Your task to perform on an android device: show emergency info Image 0: 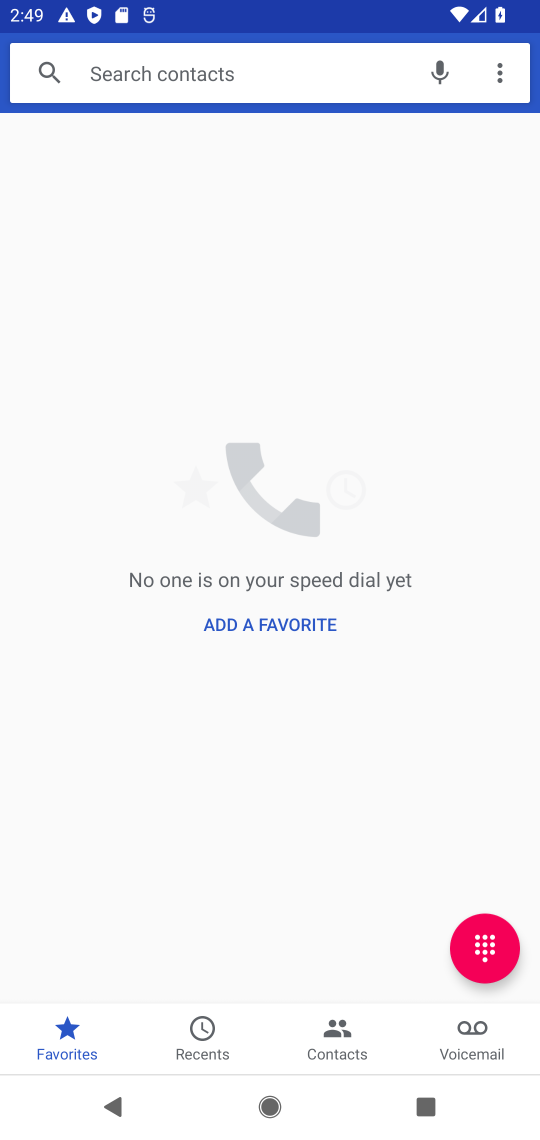
Step 0: press home button
Your task to perform on an android device: show emergency info Image 1: 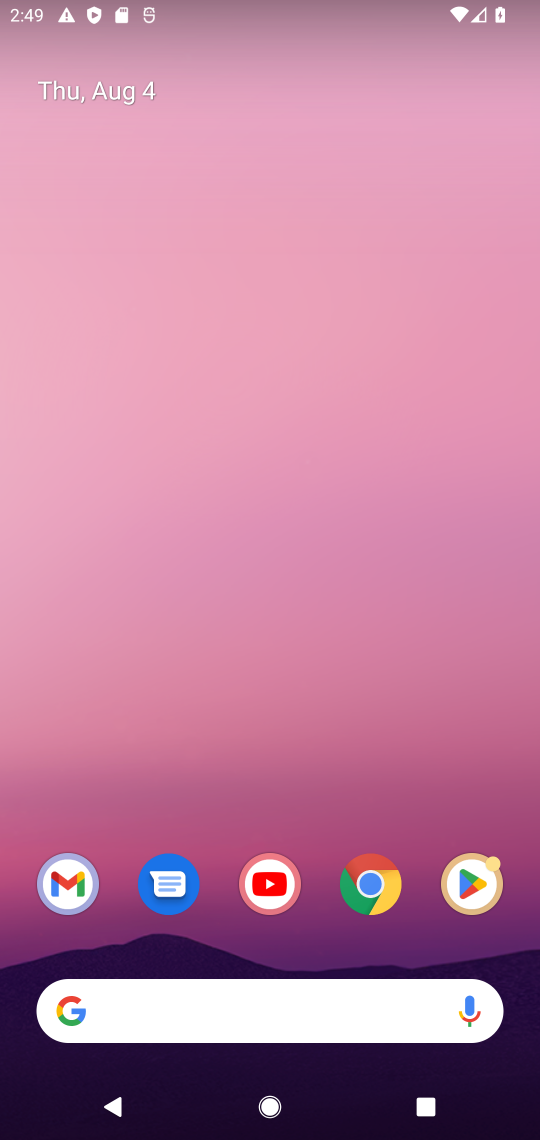
Step 1: drag from (305, 816) to (347, 239)
Your task to perform on an android device: show emergency info Image 2: 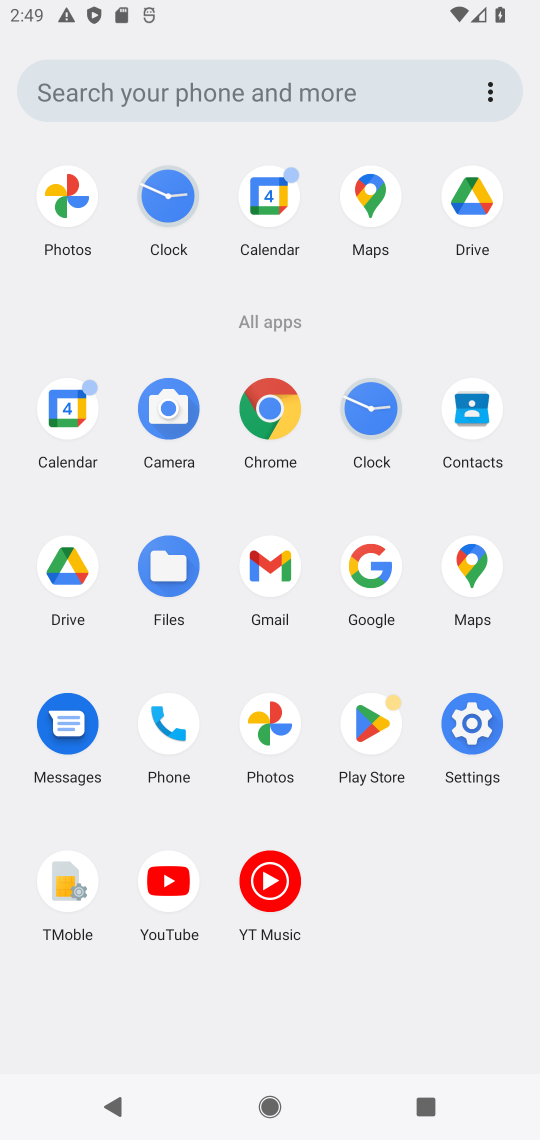
Step 2: click (472, 723)
Your task to perform on an android device: show emergency info Image 3: 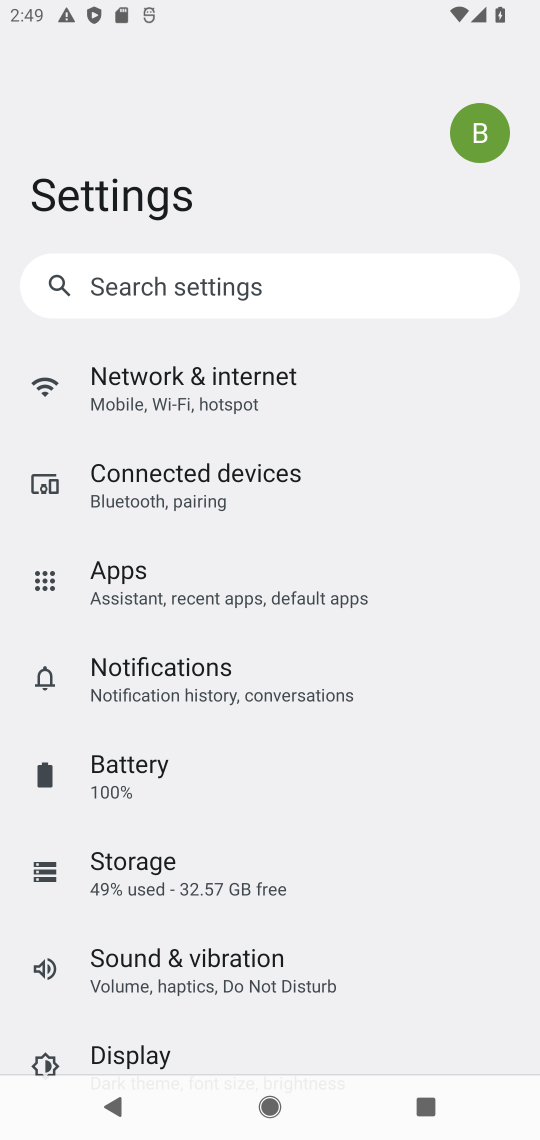
Step 3: drag from (430, 867) to (424, 672)
Your task to perform on an android device: show emergency info Image 4: 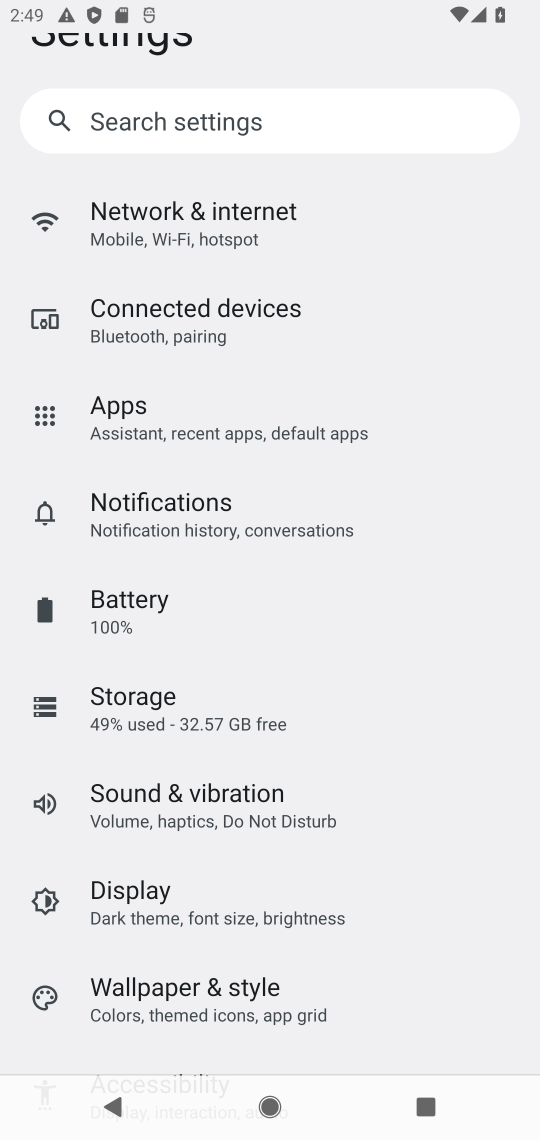
Step 4: drag from (469, 918) to (464, 766)
Your task to perform on an android device: show emergency info Image 5: 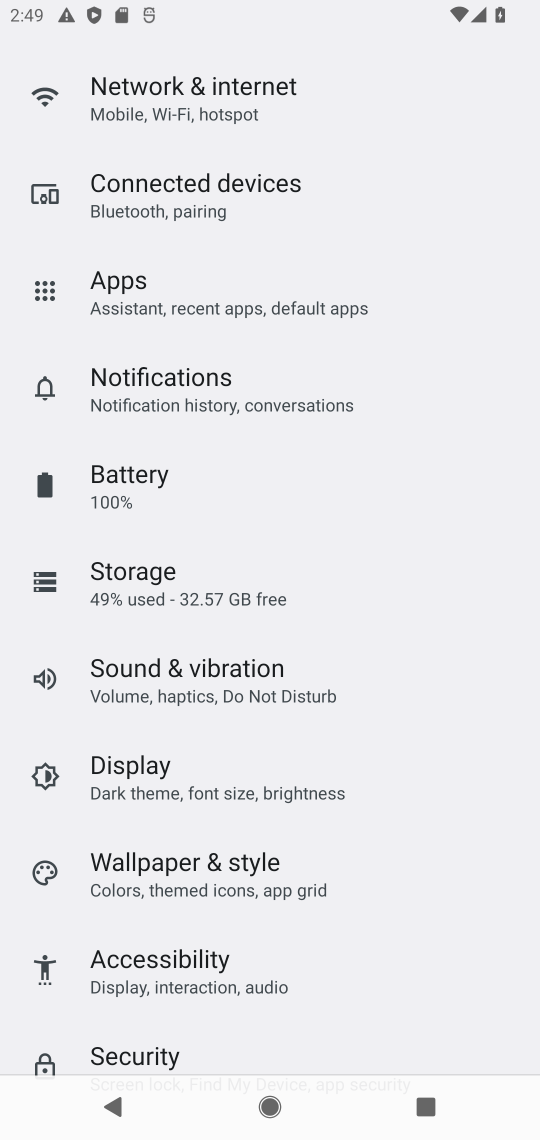
Step 5: drag from (442, 958) to (441, 711)
Your task to perform on an android device: show emergency info Image 6: 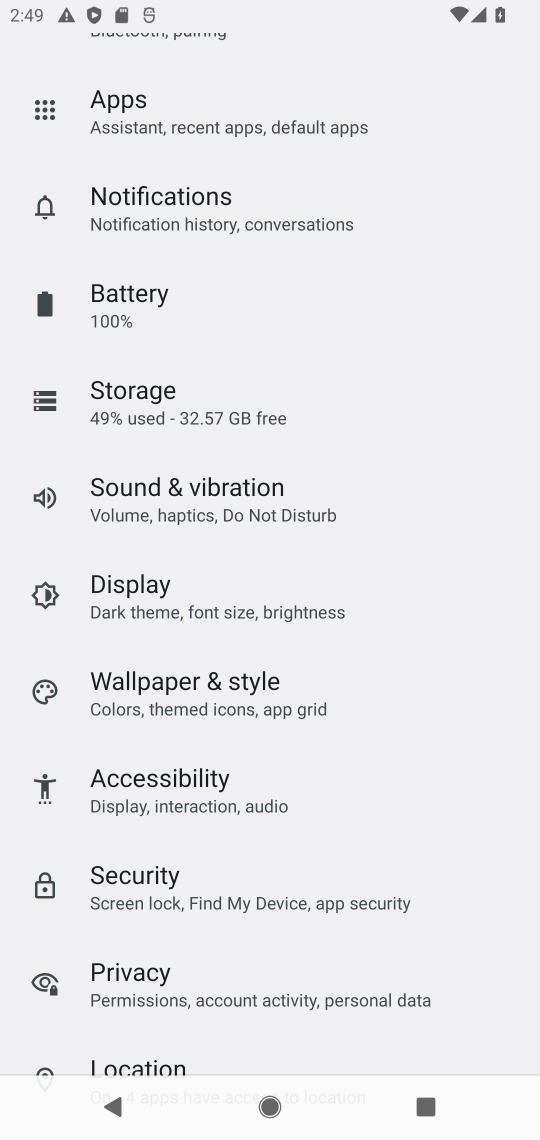
Step 6: drag from (460, 1023) to (471, 803)
Your task to perform on an android device: show emergency info Image 7: 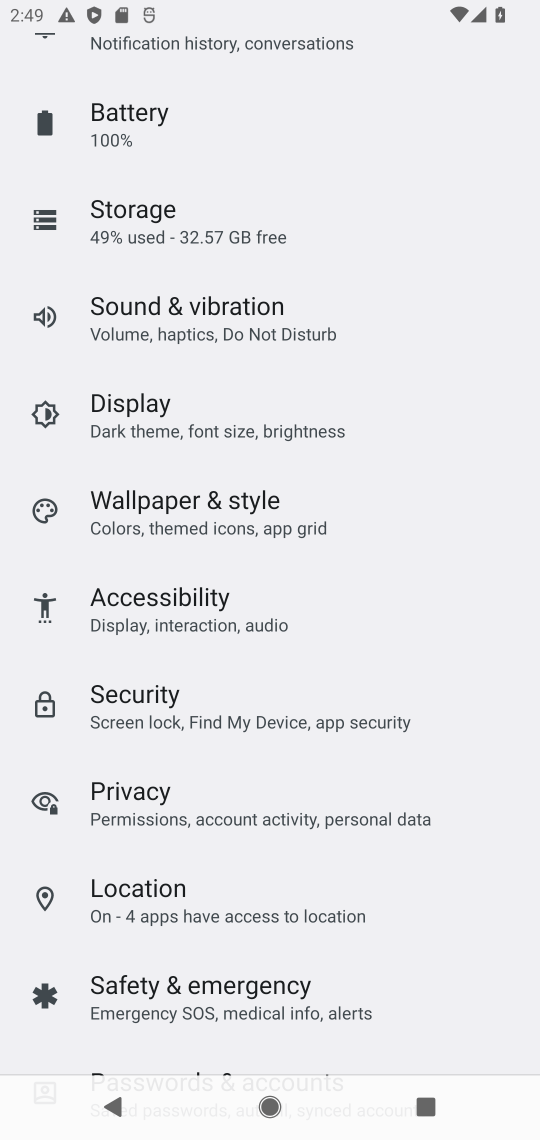
Step 7: drag from (449, 1020) to (451, 779)
Your task to perform on an android device: show emergency info Image 8: 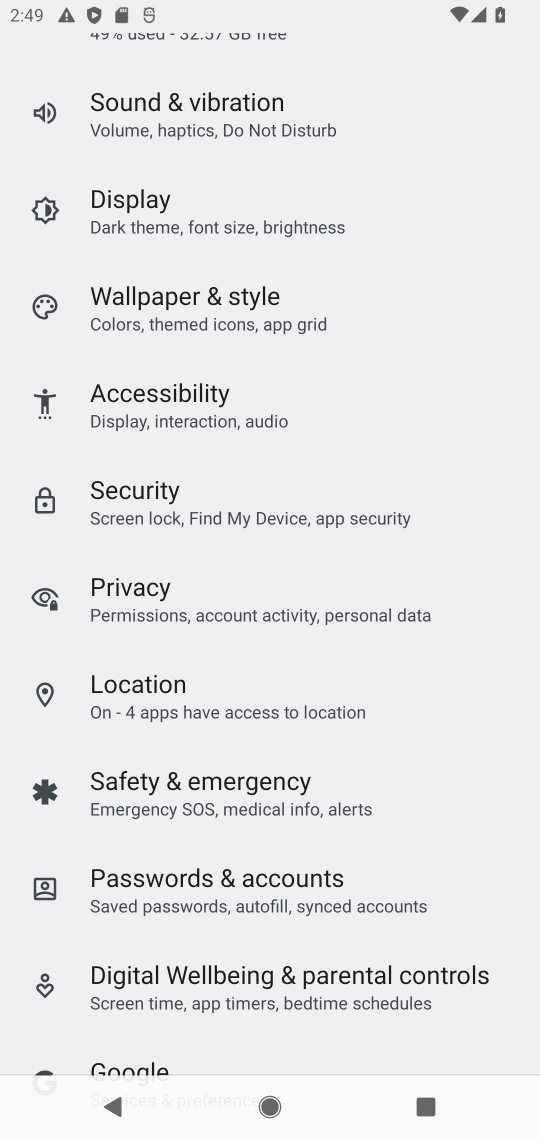
Step 8: click (353, 797)
Your task to perform on an android device: show emergency info Image 9: 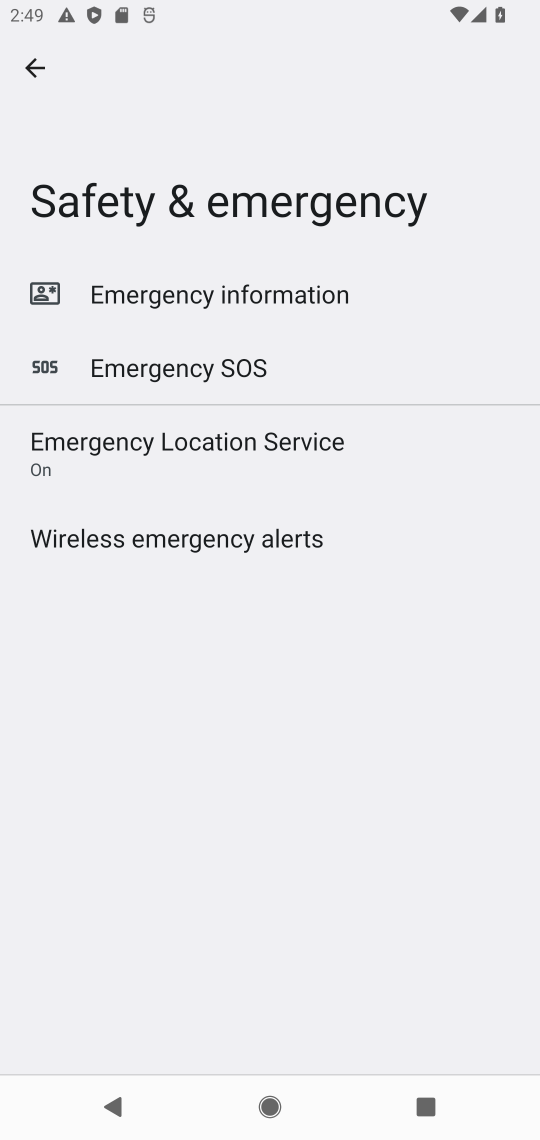
Step 9: click (306, 277)
Your task to perform on an android device: show emergency info Image 10: 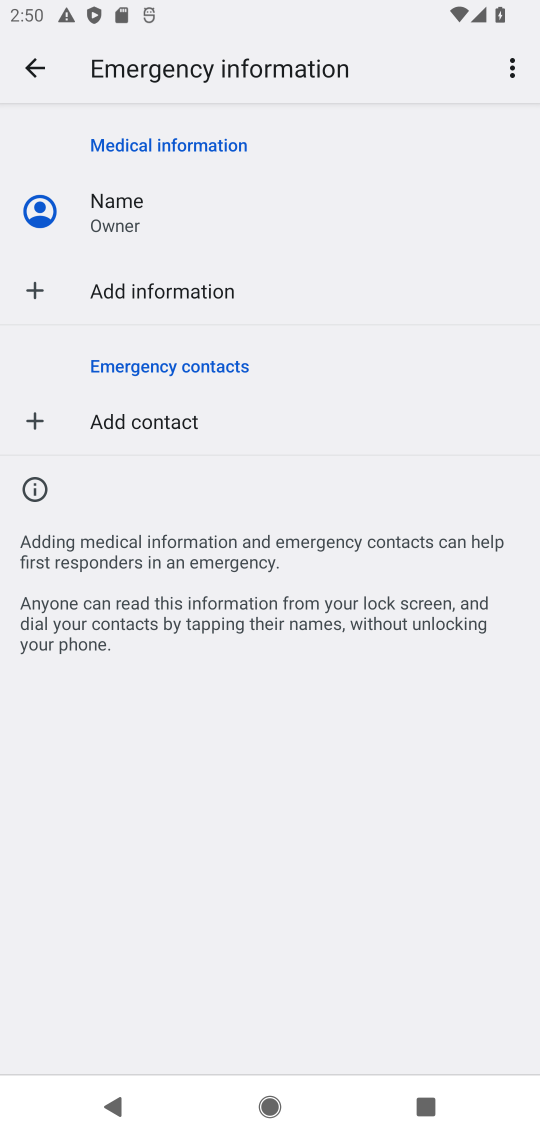
Step 10: task complete